Your task to perform on an android device: Go to CNN.com Image 0: 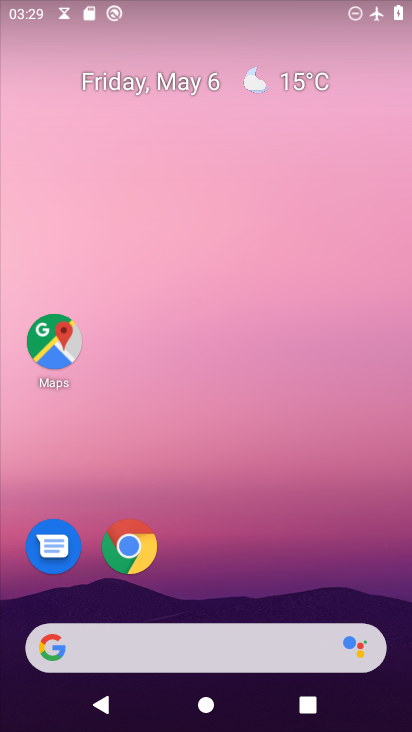
Step 0: click (138, 567)
Your task to perform on an android device: Go to CNN.com Image 1: 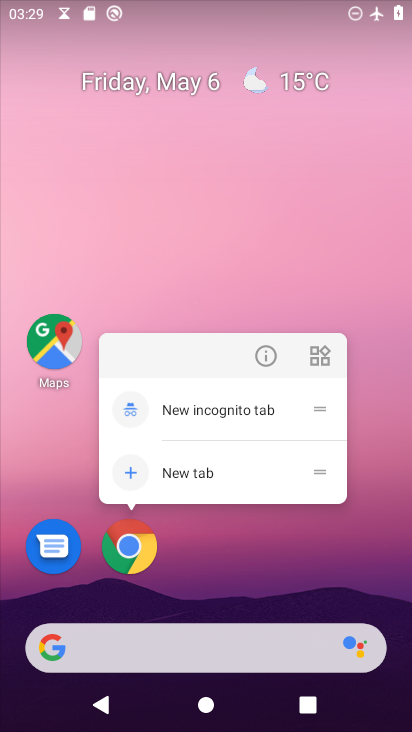
Step 1: click (94, 532)
Your task to perform on an android device: Go to CNN.com Image 2: 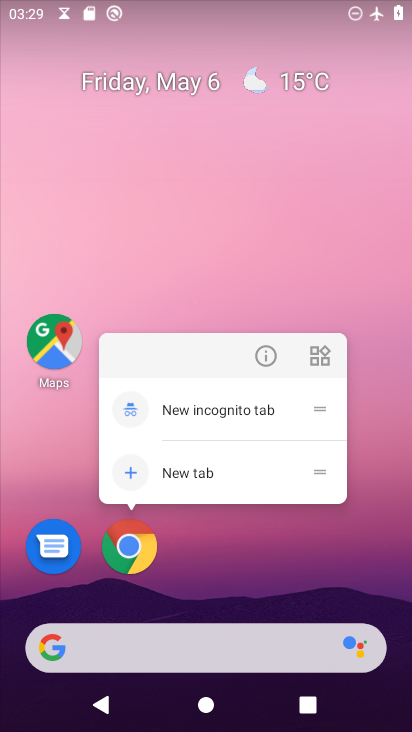
Step 2: click (126, 545)
Your task to perform on an android device: Go to CNN.com Image 3: 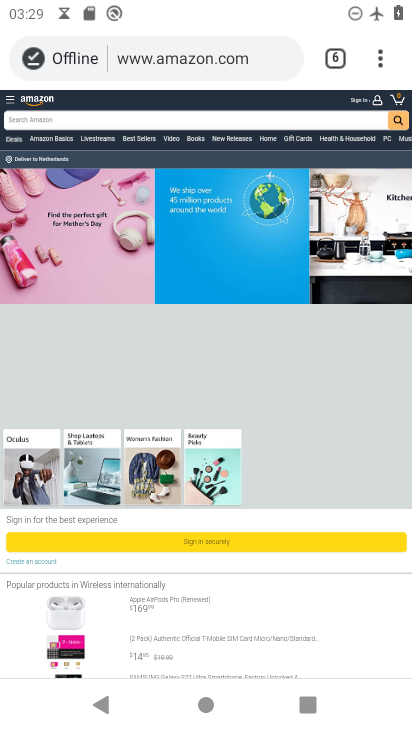
Step 3: click (335, 54)
Your task to perform on an android device: Go to CNN.com Image 4: 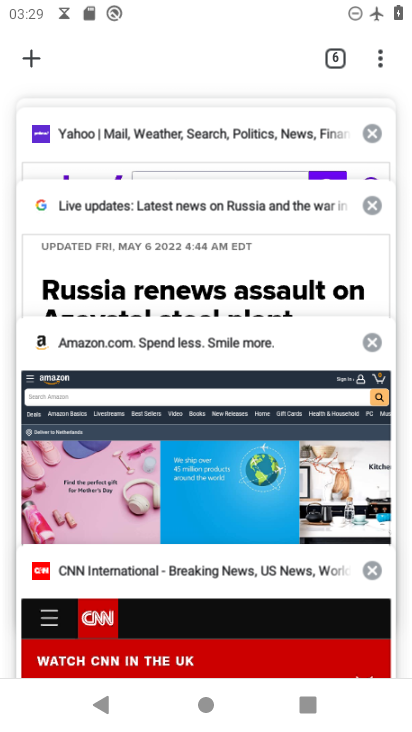
Step 4: drag from (153, 385) to (136, 266)
Your task to perform on an android device: Go to CNN.com Image 5: 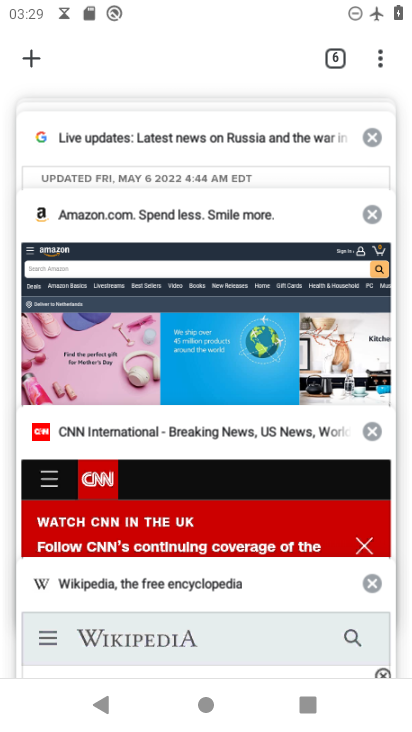
Step 5: click (145, 510)
Your task to perform on an android device: Go to CNN.com Image 6: 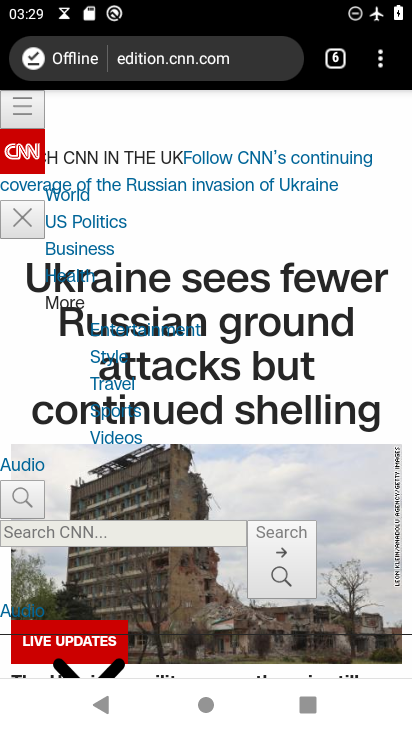
Step 6: task complete